Your task to perform on an android device: Find coffee shops on Maps Image 0: 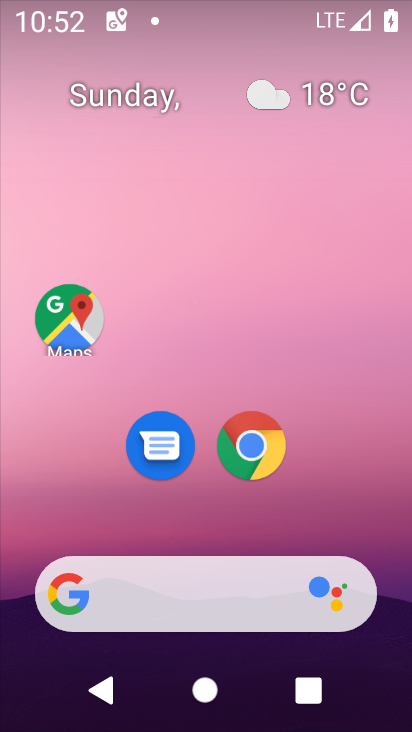
Step 0: press home button
Your task to perform on an android device: Find coffee shops on Maps Image 1: 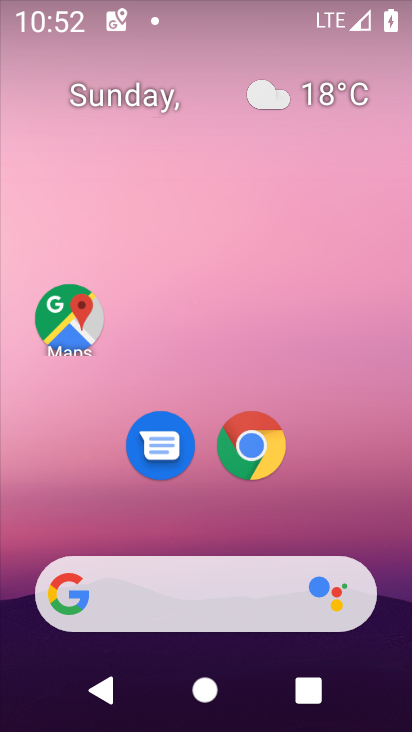
Step 1: drag from (214, 531) to (294, 0)
Your task to perform on an android device: Find coffee shops on Maps Image 2: 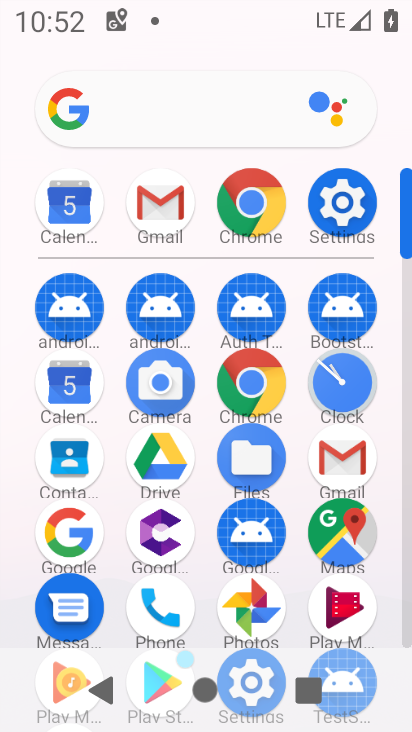
Step 2: click (347, 527)
Your task to perform on an android device: Find coffee shops on Maps Image 3: 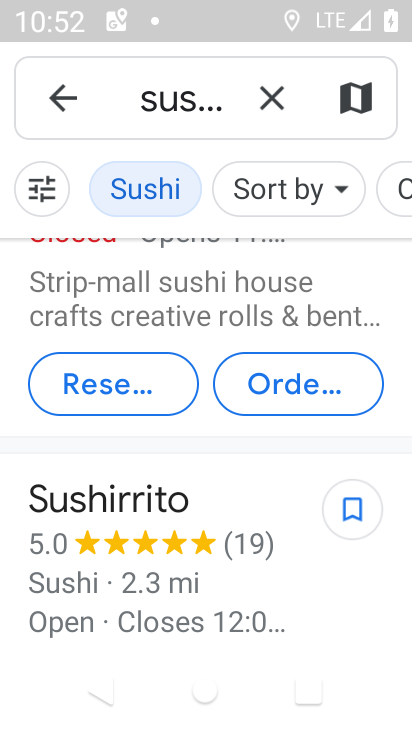
Step 3: click (279, 99)
Your task to perform on an android device: Find coffee shops on Maps Image 4: 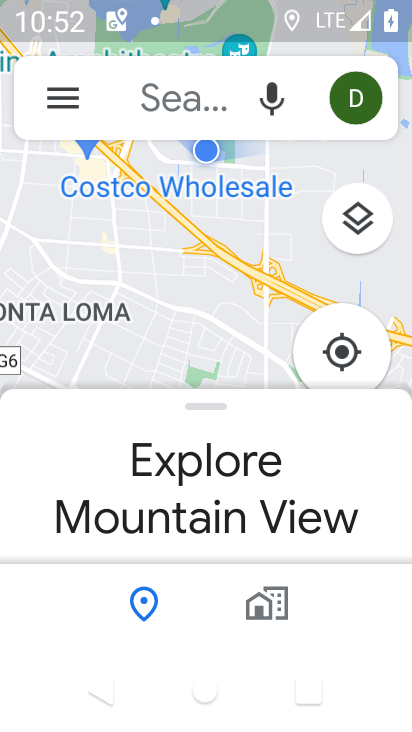
Step 4: click (136, 91)
Your task to perform on an android device: Find coffee shops on Maps Image 5: 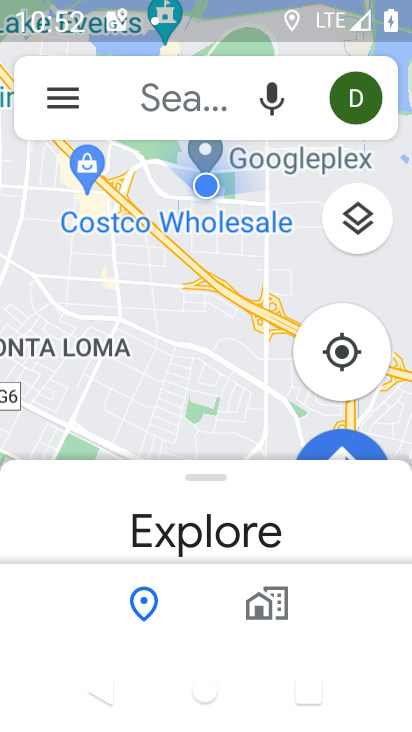
Step 5: click (163, 95)
Your task to perform on an android device: Find coffee shops on Maps Image 6: 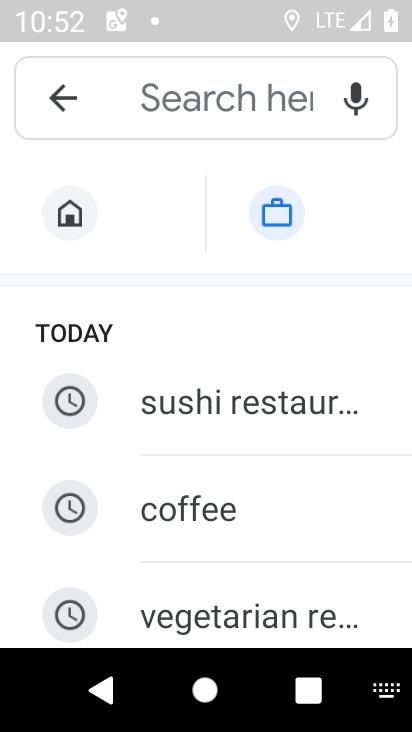
Step 6: click (229, 525)
Your task to perform on an android device: Find coffee shops on Maps Image 7: 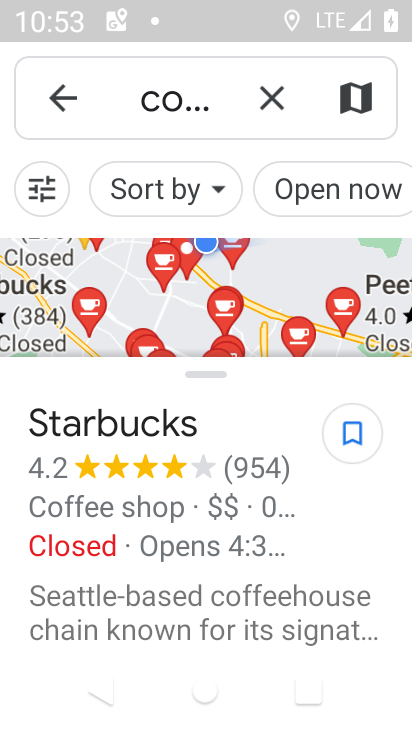
Step 7: task complete